Your task to perform on an android device: turn off wifi Image 0: 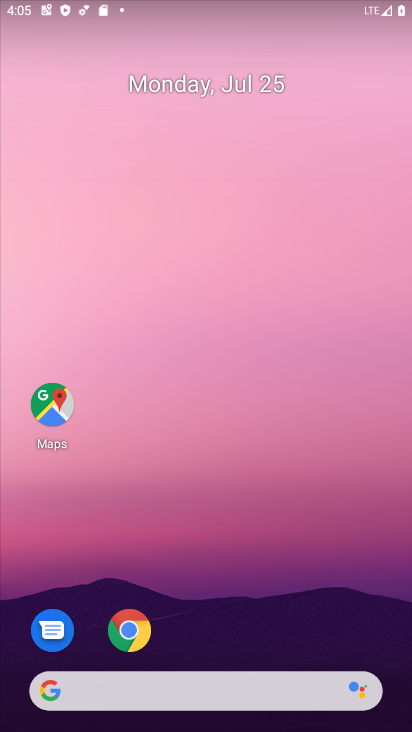
Step 0: drag from (245, 642) to (228, 138)
Your task to perform on an android device: turn off wifi Image 1: 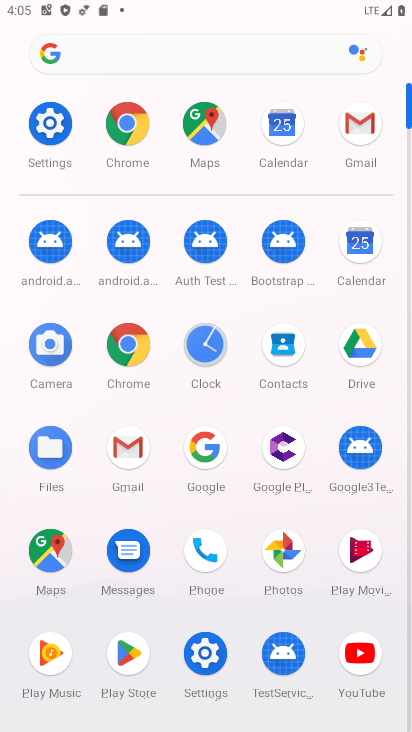
Step 1: click (59, 137)
Your task to perform on an android device: turn off wifi Image 2: 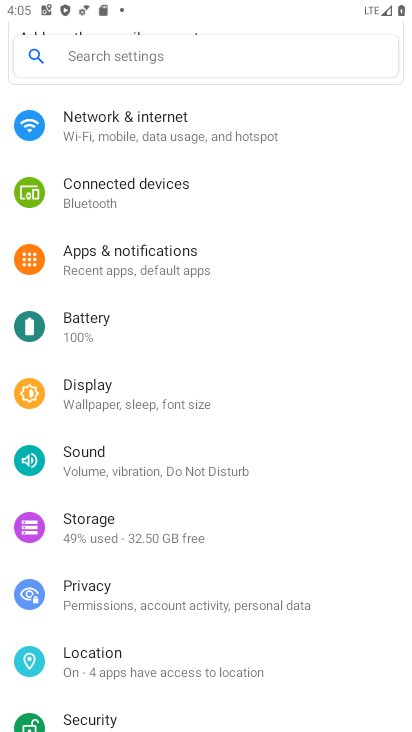
Step 2: click (139, 133)
Your task to perform on an android device: turn off wifi Image 3: 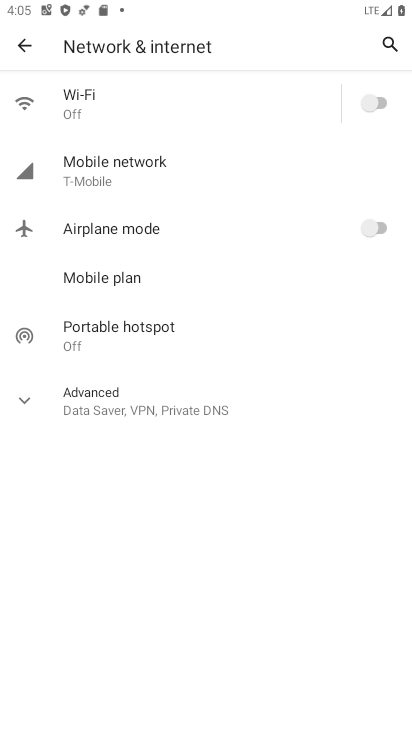
Step 3: task complete